Your task to perform on an android device: Open internet settings Image 0: 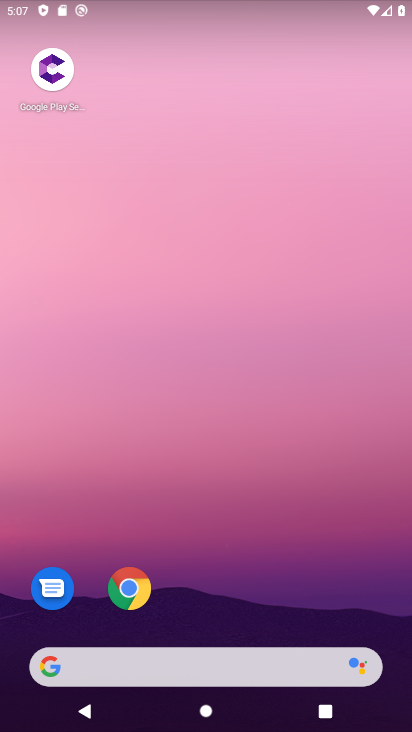
Step 0: drag from (236, 569) to (214, 48)
Your task to perform on an android device: Open internet settings Image 1: 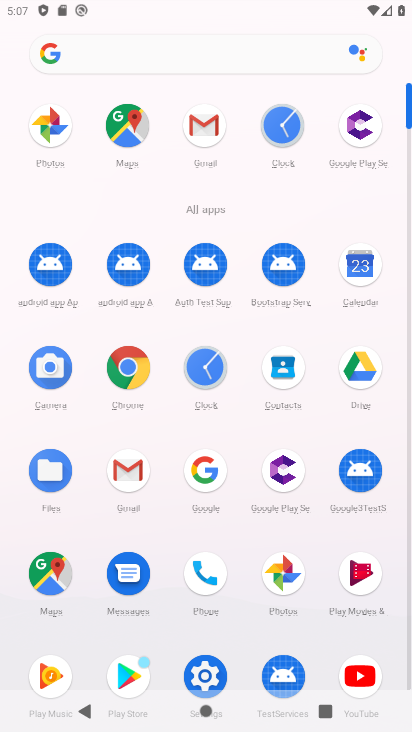
Step 1: drag from (3, 512) to (18, 209)
Your task to perform on an android device: Open internet settings Image 2: 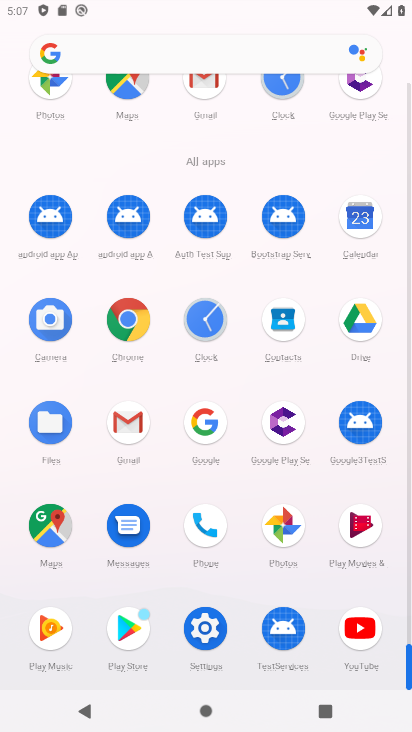
Step 2: click (207, 623)
Your task to perform on an android device: Open internet settings Image 3: 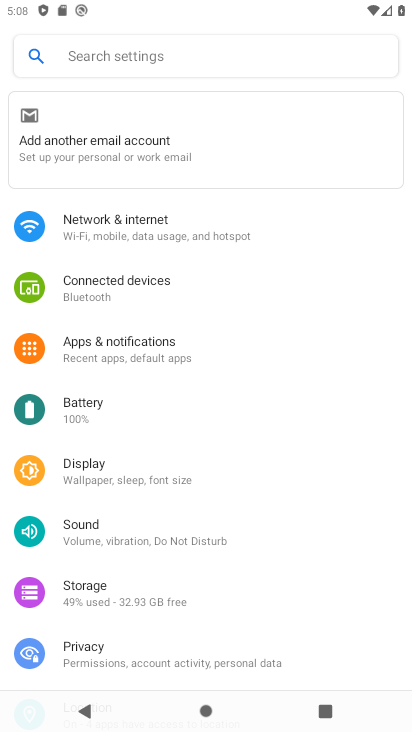
Step 3: click (159, 236)
Your task to perform on an android device: Open internet settings Image 4: 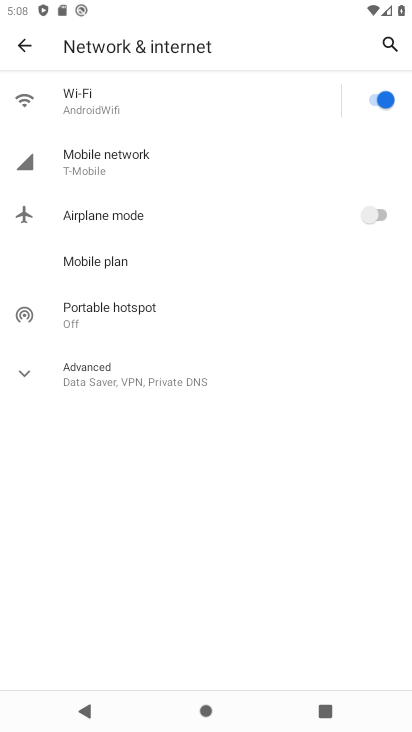
Step 4: click (29, 378)
Your task to perform on an android device: Open internet settings Image 5: 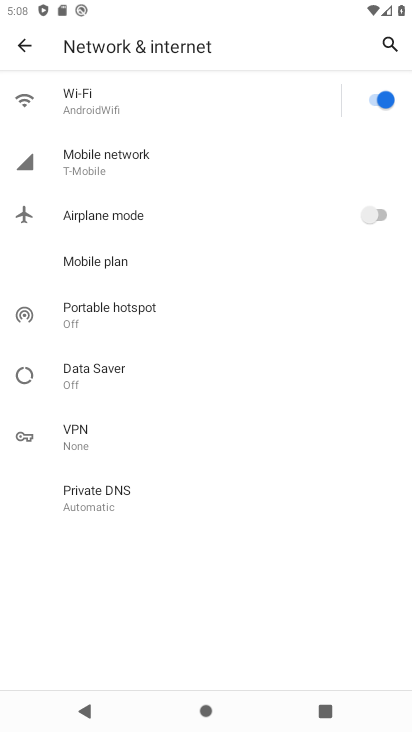
Step 5: click (97, 98)
Your task to perform on an android device: Open internet settings Image 6: 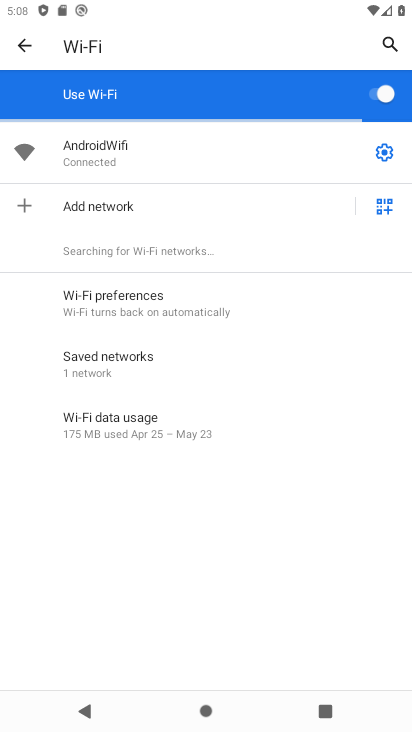
Step 6: task complete